Your task to perform on an android device: See recent photos Image 0: 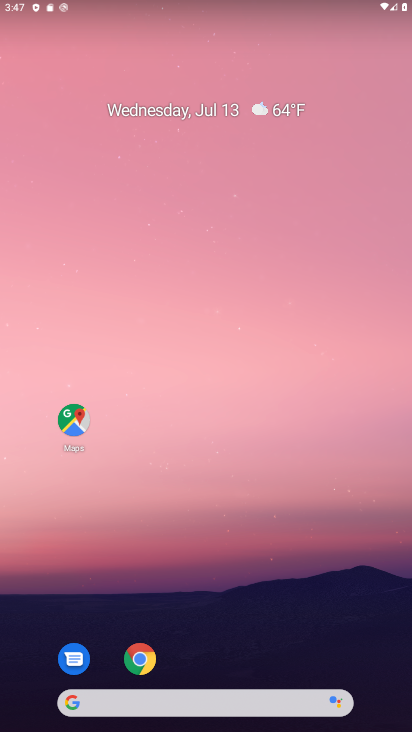
Step 0: drag from (148, 695) to (239, 164)
Your task to perform on an android device: See recent photos Image 1: 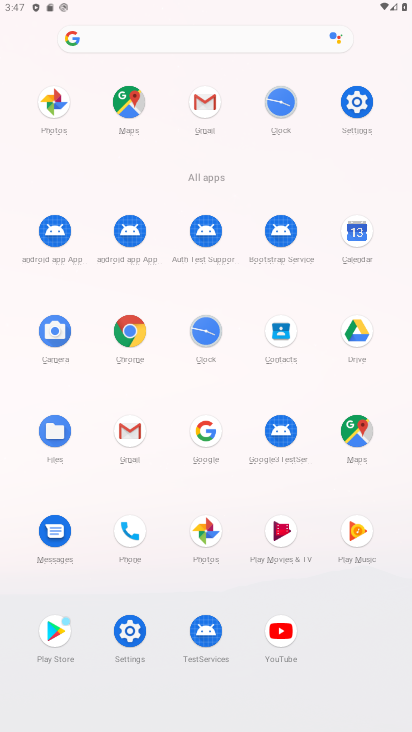
Step 1: click (193, 525)
Your task to perform on an android device: See recent photos Image 2: 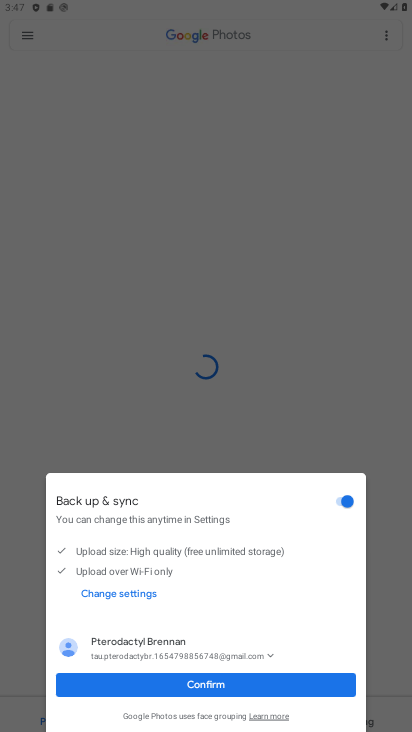
Step 2: click (205, 693)
Your task to perform on an android device: See recent photos Image 3: 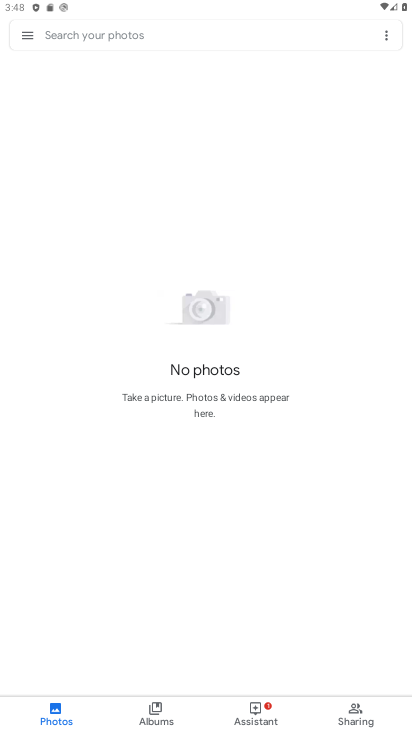
Step 3: task complete